Your task to perform on an android device: change keyboard looks Image 0: 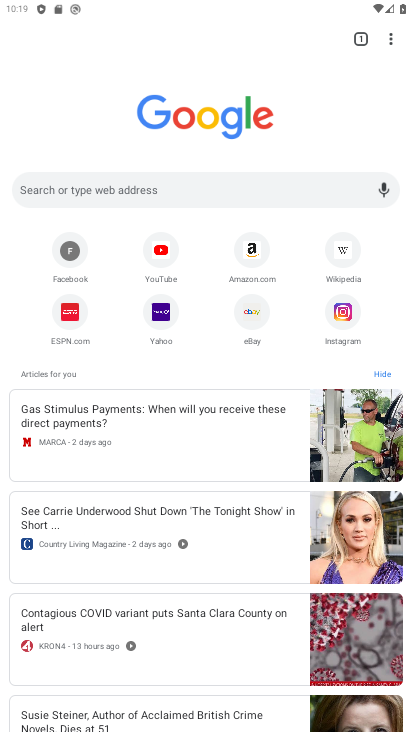
Step 0: press home button
Your task to perform on an android device: change keyboard looks Image 1: 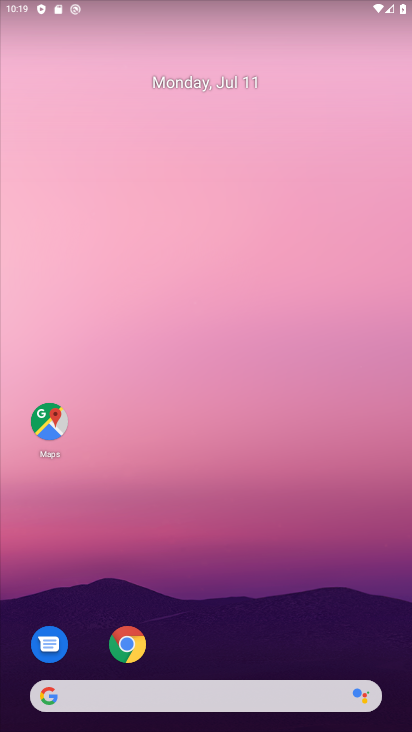
Step 1: drag from (223, 644) to (374, 0)
Your task to perform on an android device: change keyboard looks Image 2: 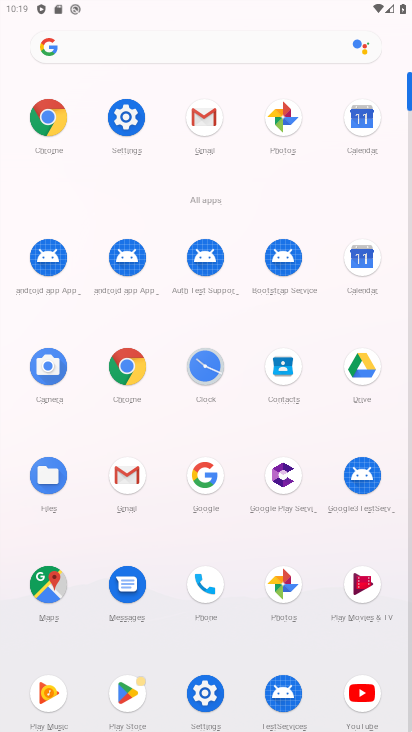
Step 2: click (204, 700)
Your task to perform on an android device: change keyboard looks Image 3: 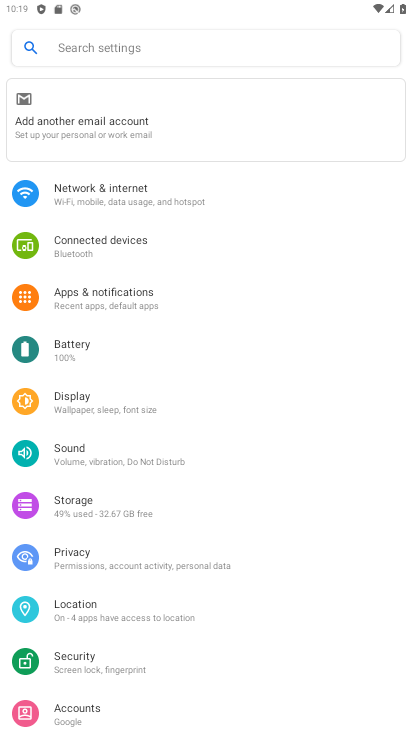
Step 3: drag from (131, 635) to (161, 277)
Your task to perform on an android device: change keyboard looks Image 4: 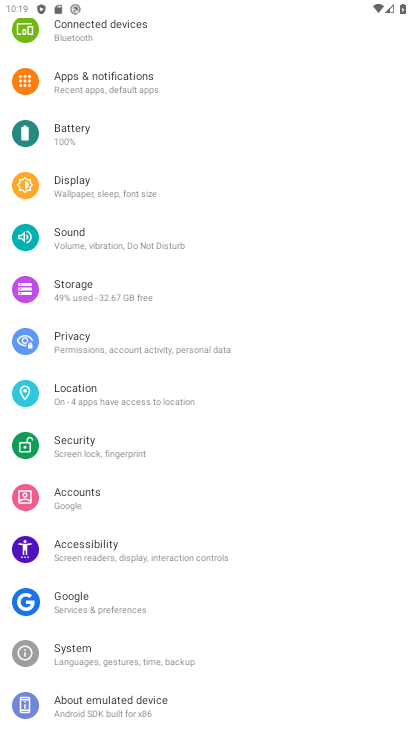
Step 4: click (93, 650)
Your task to perform on an android device: change keyboard looks Image 5: 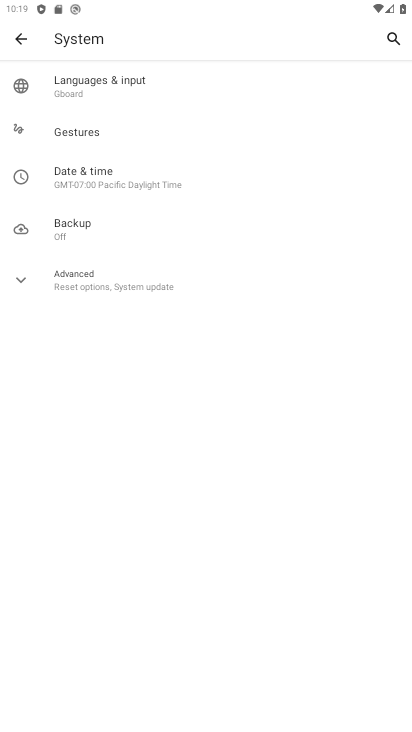
Step 5: click (112, 74)
Your task to perform on an android device: change keyboard looks Image 6: 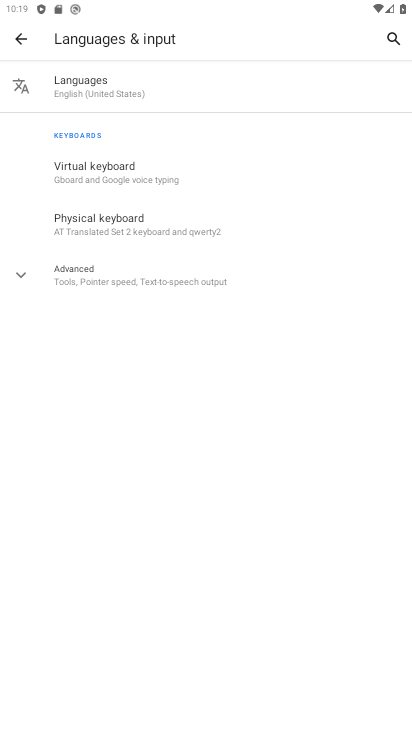
Step 6: click (127, 176)
Your task to perform on an android device: change keyboard looks Image 7: 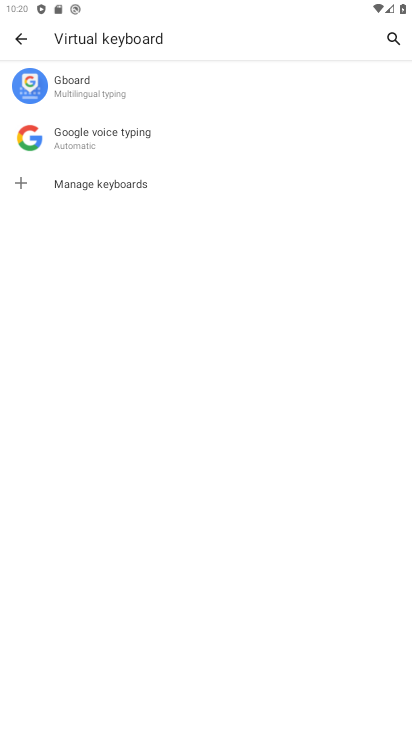
Step 7: click (89, 83)
Your task to perform on an android device: change keyboard looks Image 8: 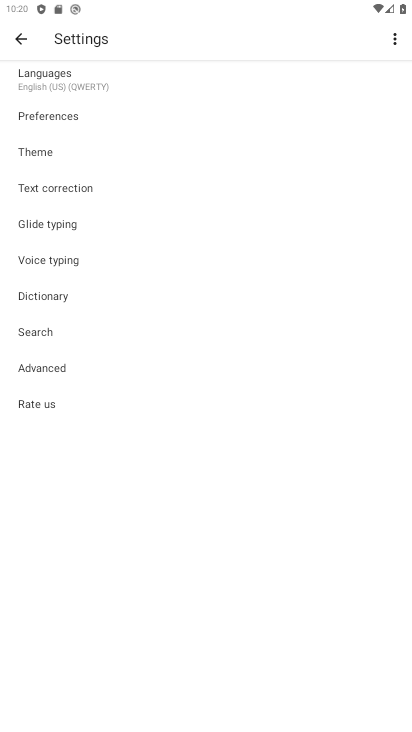
Step 8: click (40, 149)
Your task to perform on an android device: change keyboard looks Image 9: 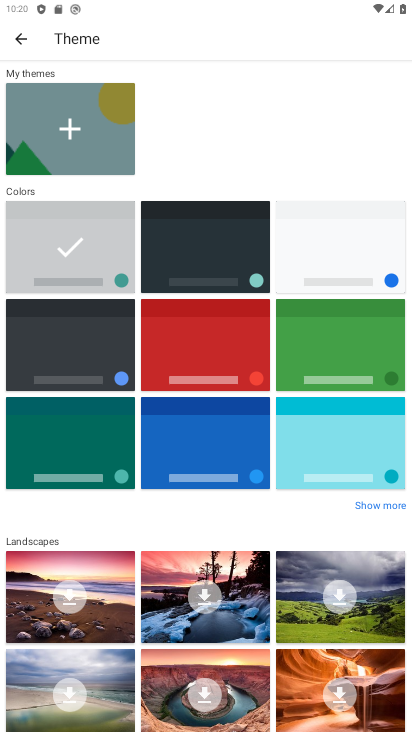
Step 9: click (224, 256)
Your task to perform on an android device: change keyboard looks Image 10: 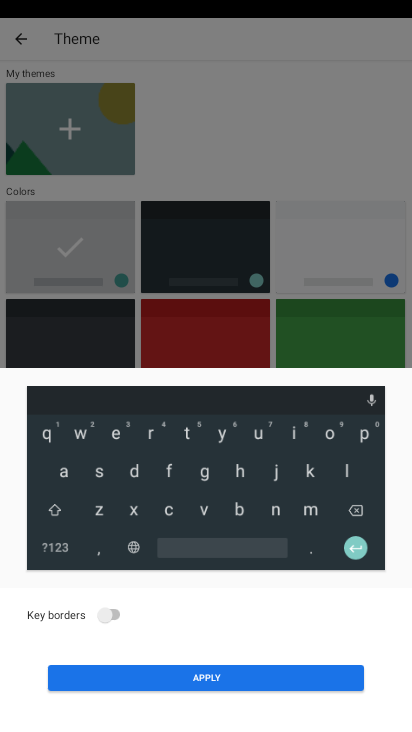
Step 10: click (248, 670)
Your task to perform on an android device: change keyboard looks Image 11: 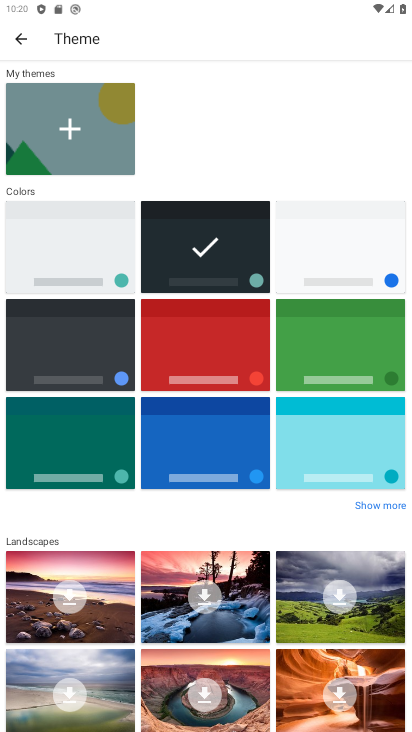
Step 11: task complete